Your task to perform on an android device: search for starred emails in the gmail app Image 0: 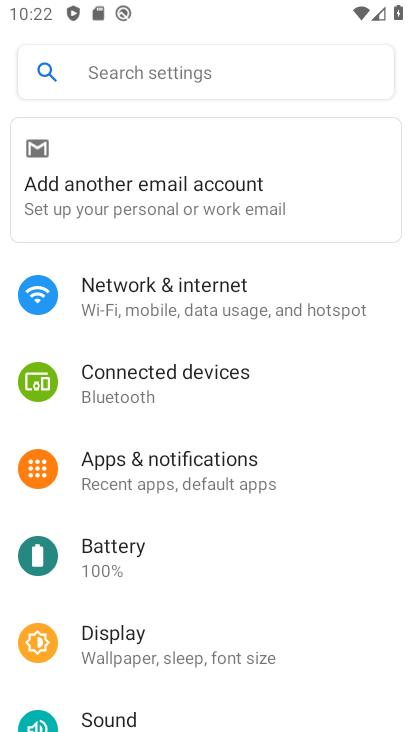
Step 0: press home button
Your task to perform on an android device: search for starred emails in the gmail app Image 1: 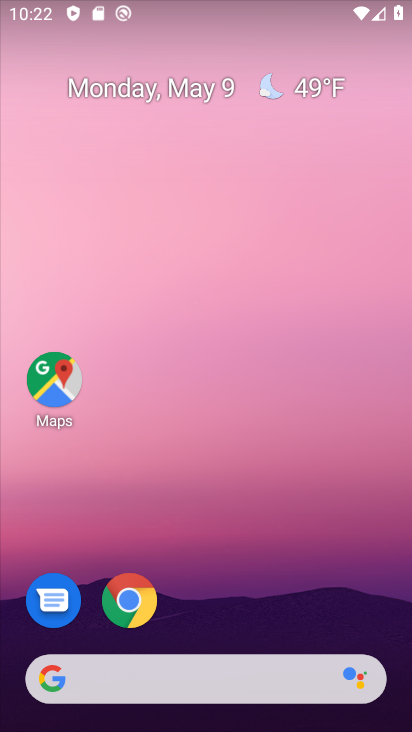
Step 1: drag from (404, 610) to (361, 217)
Your task to perform on an android device: search for starred emails in the gmail app Image 2: 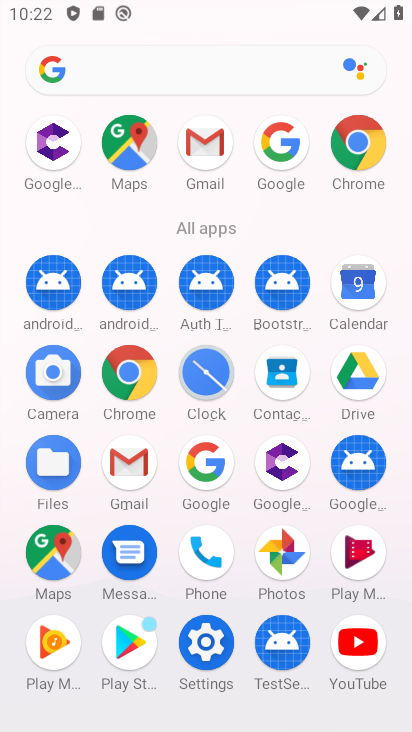
Step 2: click (134, 456)
Your task to perform on an android device: search for starred emails in the gmail app Image 3: 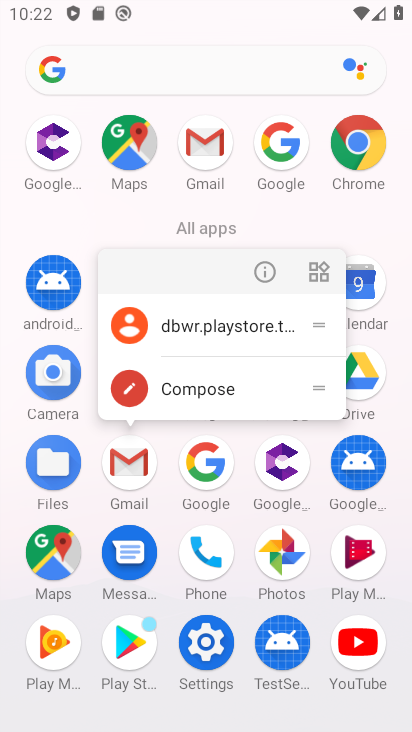
Step 3: click (128, 470)
Your task to perform on an android device: search for starred emails in the gmail app Image 4: 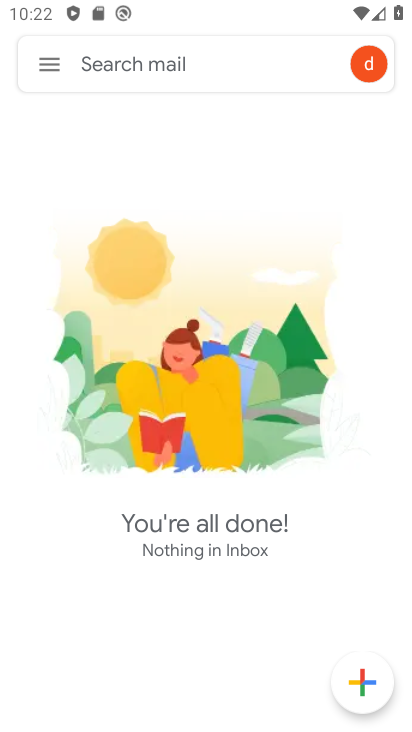
Step 4: click (47, 57)
Your task to perform on an android device: search for starred emails in the gmail app Image 5: 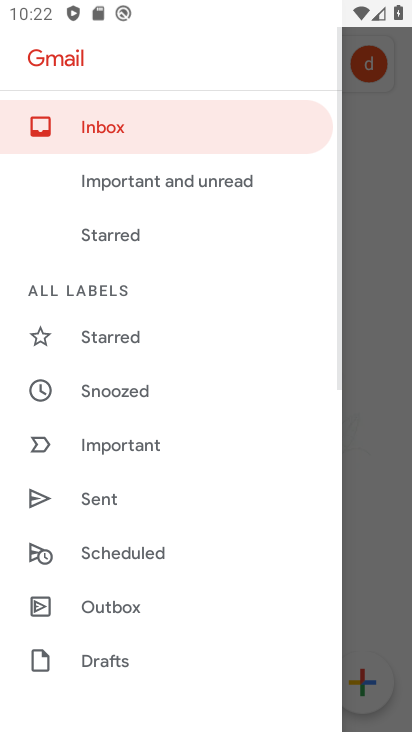
Step 5: click (176, 342)
Your task to perform on an android device: search for starred emails in the gmail app Image 6: 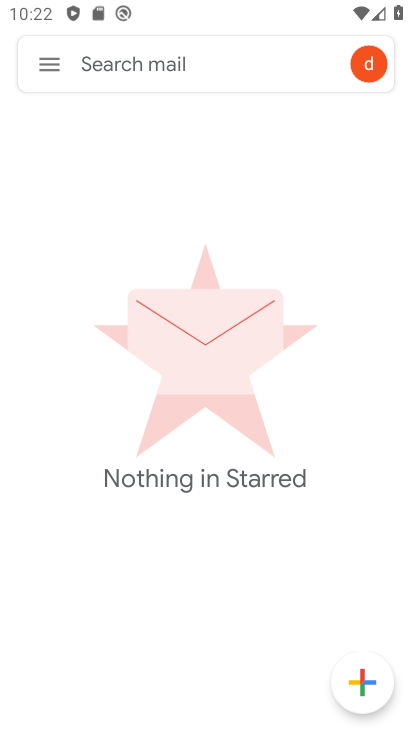
Step 6: task complete